Your task to perform on an android device: Search for vegetarian restaurants on Maps Image 0: 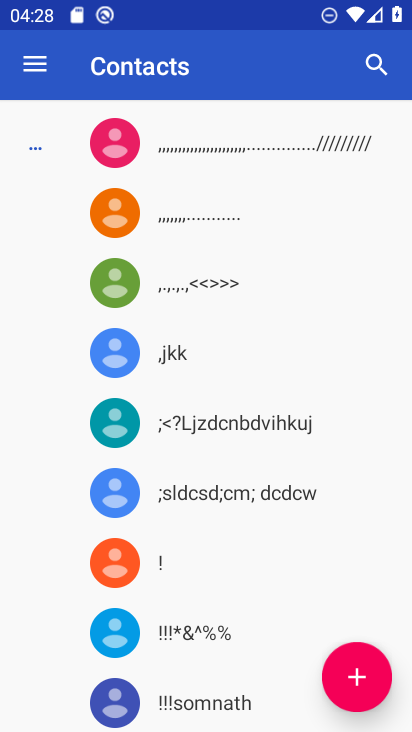
Step 0: press home button
Your task to perform on an android device: Search for vegetarian restaurants on Maps Image 1: 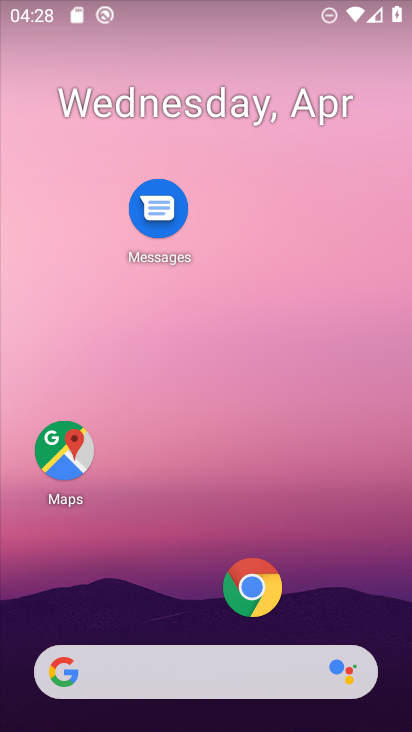
Step 1: click (67, 473)
Your task to perform on an android device: Search for vegetarian restaurants on Maps Image 2: 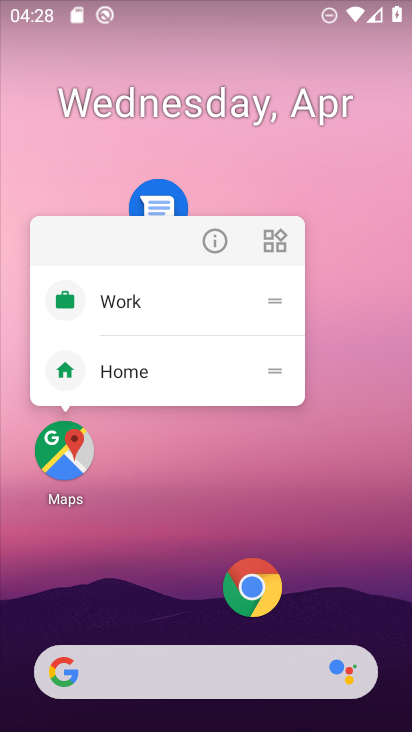
Step 2: click (74, 457)
Your task to perform on an android device: Search for vegetarian restaurants on Maps Image 3: 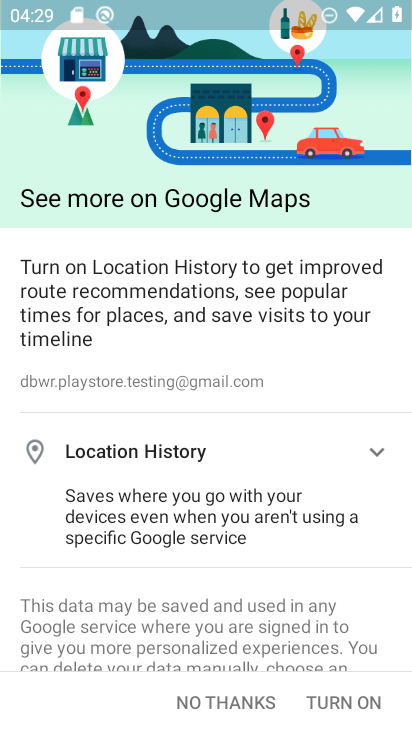
Step 3: click (345, 700)
Your task to perform on an android device: Search for vegetarian restaurants on Maps Image 4: 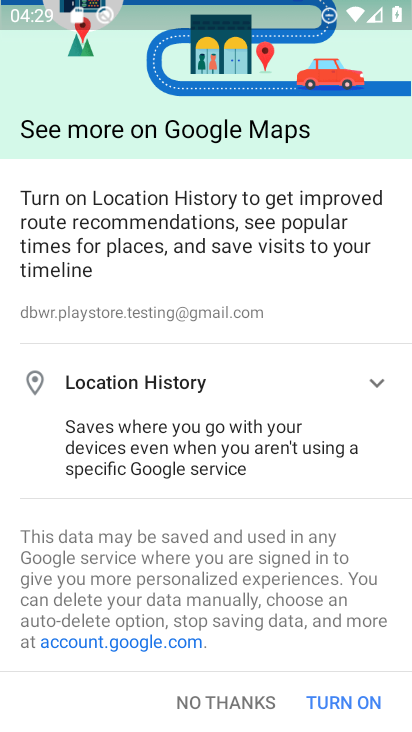
Step 4: click (345, 700)
Your task to perform on an android device: Search for vegetarian restaurants on Maps Image 5: 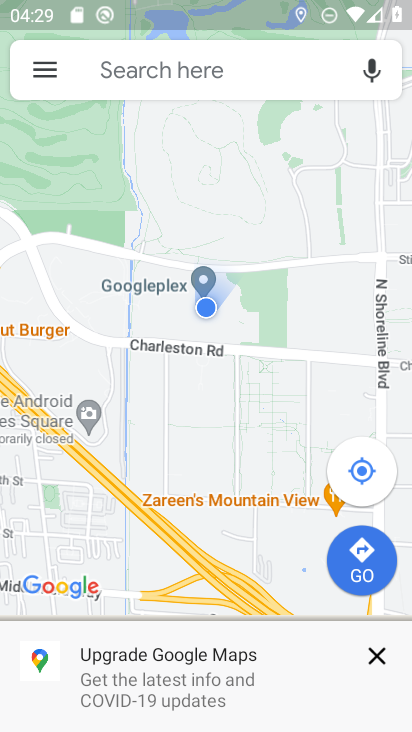
Step 5: click (174, 80)
Your task to perform on an android device: Search for vegetarian restaurants on Maps Image 6: 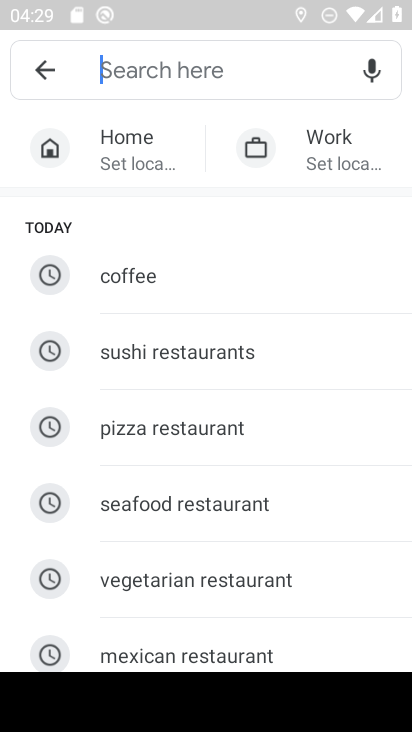
Step 6: type "vegetarian restaurants"
Your task to perform on an android device: Search for vegetarian restaurants on Maps Image 7: 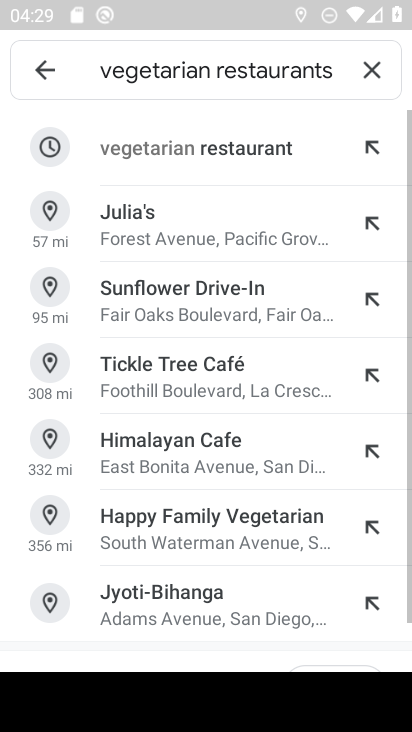
Step 7: click (213, 156)
Your task to perform on an android device: Search for vegetarian restaurants on Maps Image 8: 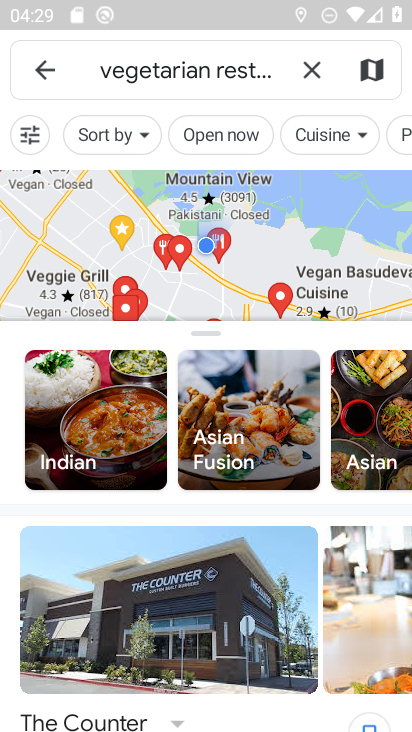
Step 8: task complete